Your task to perform on an android device: star an email in the gmail app Image 0: 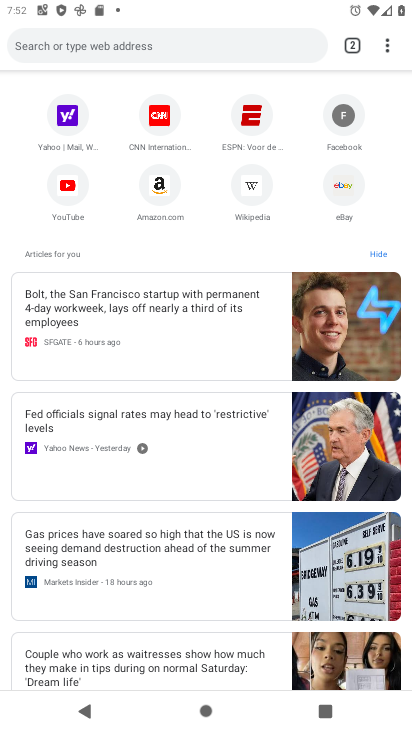
Step 0: press home button
Your task to perform on an android device: star an email in the gmail app Image 1: 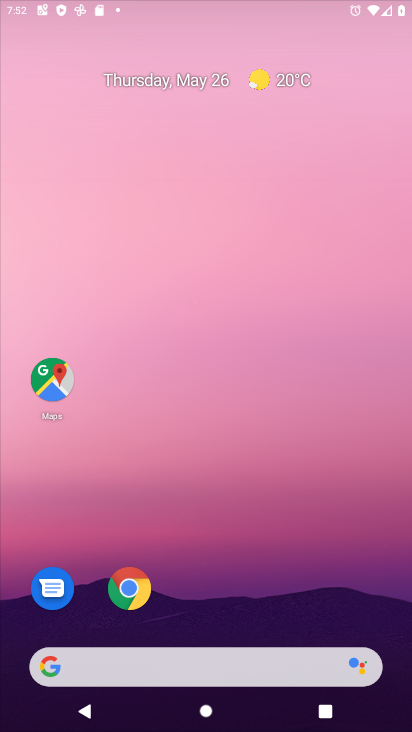
Step 1: drag from (384, 656) to (322, 71)
Your task to perform on an android device: star an email in the gmail app Image 2: 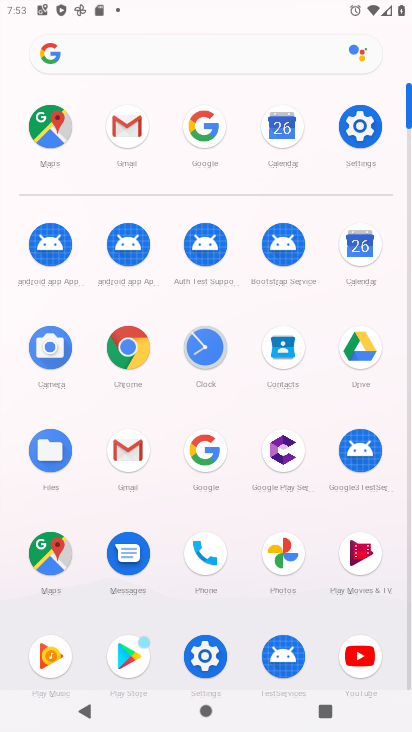
Step 2: click (129, 433)
Your task to perform on an android device: star an email in the gmail app Image 3: 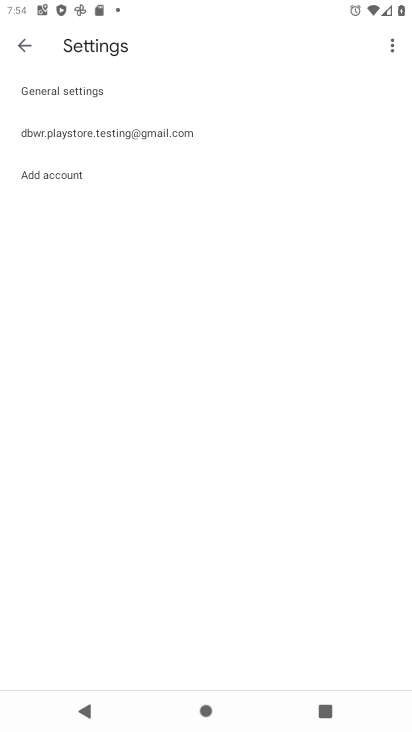
Step 3: task complete